Your task to perform on an android device: Go to Maps Image 0: 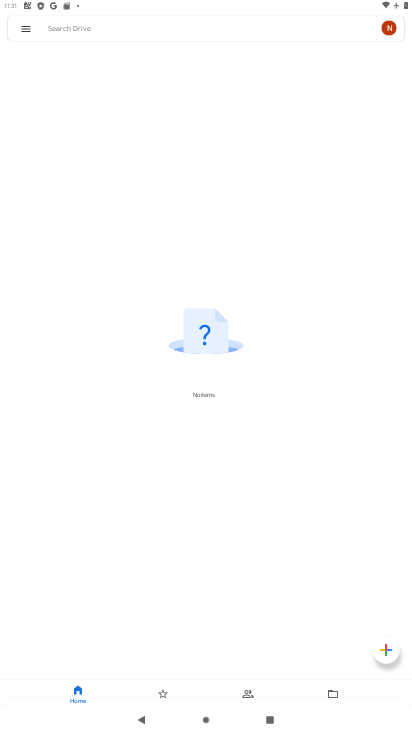
Step 0: press home button
Your task to perform on an android device: Go to Maps Image 1: 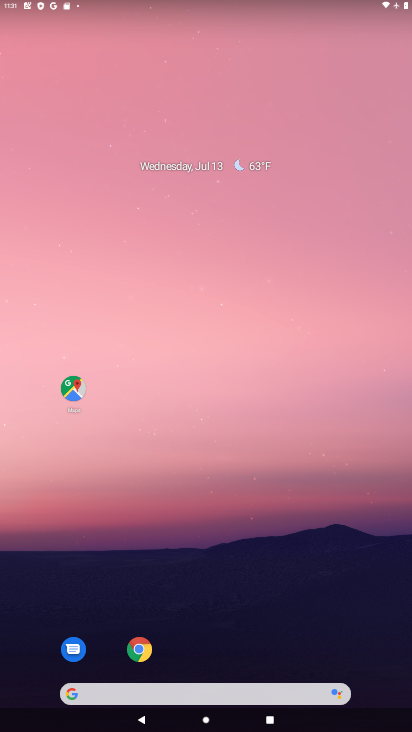
Step 1: click (70, 377)
Your task to perform on an android device: Go to Maps Image 2: 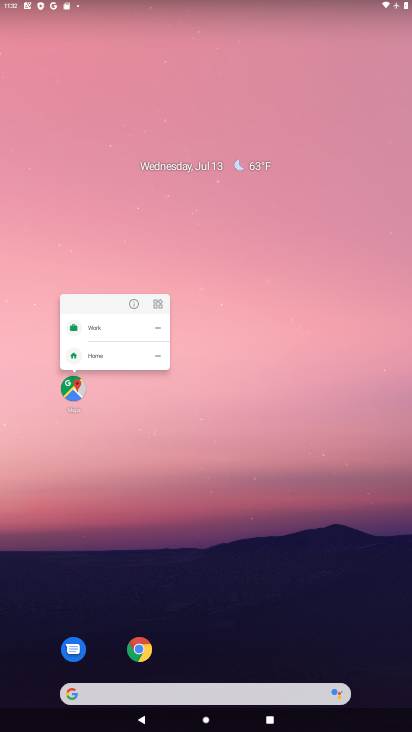
Step 2: click (220, 597)
Your task to perform on an android device: Go to Maps Image 3: 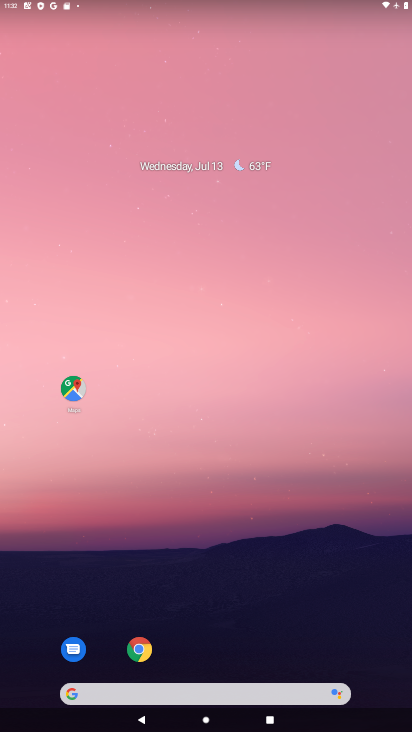
Step 3: drag from (276, 639) to (290, 329)
Your task to perform on an android device: Go to Maps Image 4: 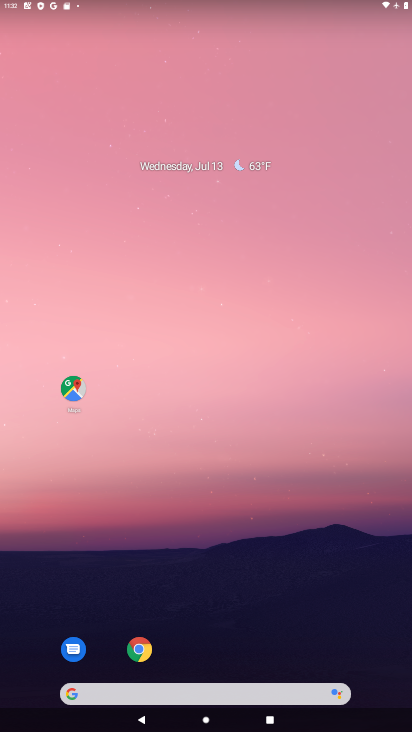
Step 4: drag from (259, 624) to (264, 115)
Your task to perform on an android device: Go to Maps Image 5: 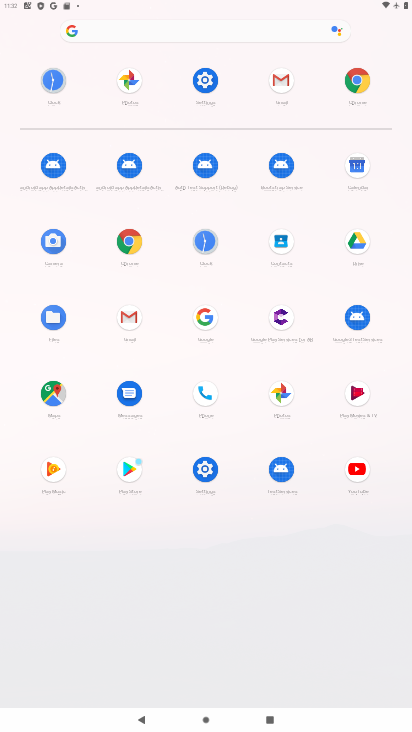
Step 5: click (52, 391)
Your task to perform on an android device: Go to Maps Image 6: 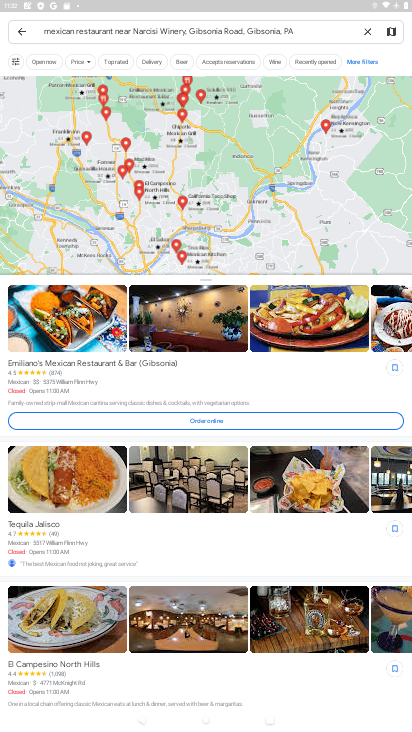
Step 6: task complete